Your task to perform on an android device: Search for pizza restaurants on Maps Image 0: 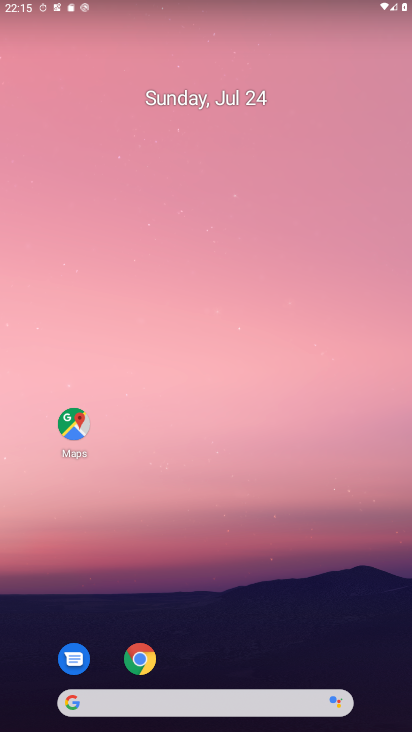
Step 0: drag from (221, 724) to (197, 77)
Your task to perform on an android device: Search for pizza restaurants on Maps Image 1: 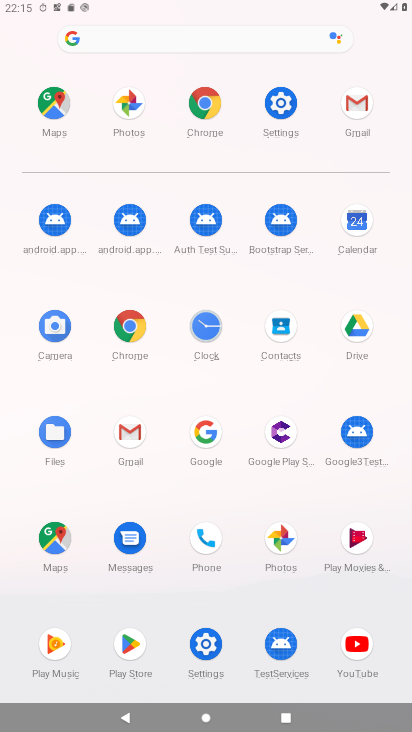
Step 1: click (56, 534)
Your task to perform on an android device: Search for pizza restaurants on Maps Image 2: 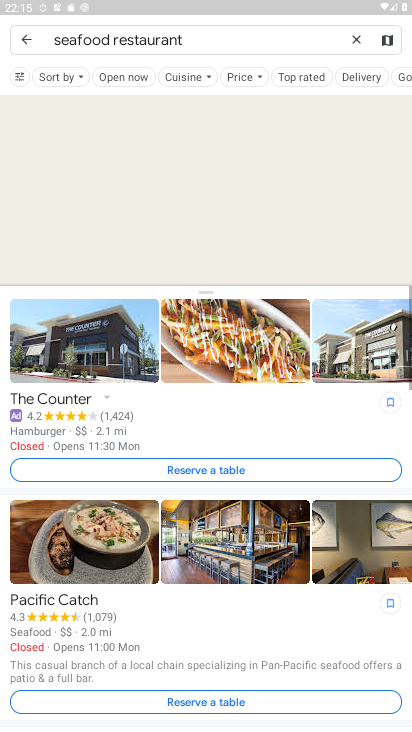
Step 2: click (352, 40)
Your task to perform on an android device: Search for pizza restaurants on Maps Image 3: 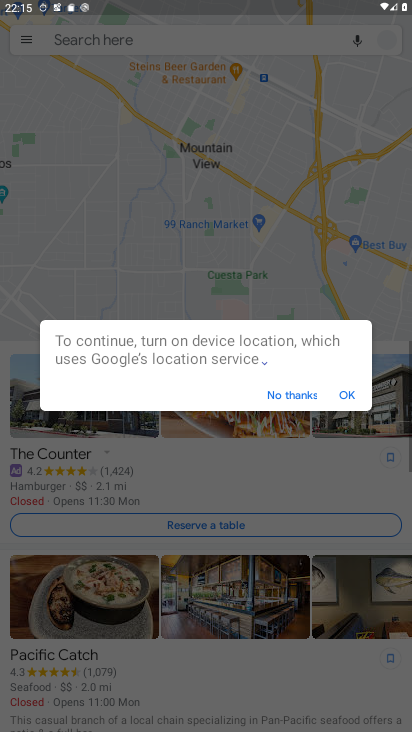
Step 3: click (341, 387)
Your task to perform on an android device: Search for pizza restaurants on Maps Image 4: 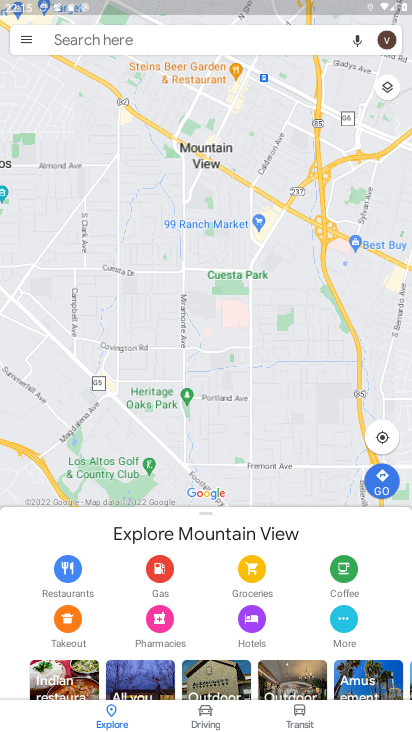
Step 4: click (258, 44)
Your task to perform on an android device: Search for pizza restaurants on Maps Image 5: 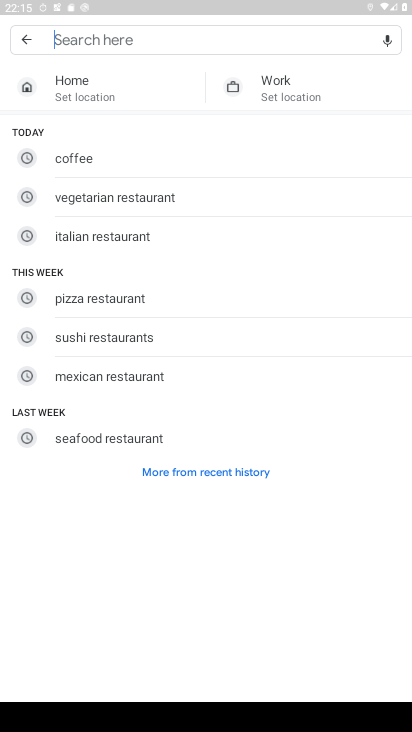
Step 5: type "pizza restaurants"
Your task to perform on an android device: Search for pizza restaurants on Maps Image 6: 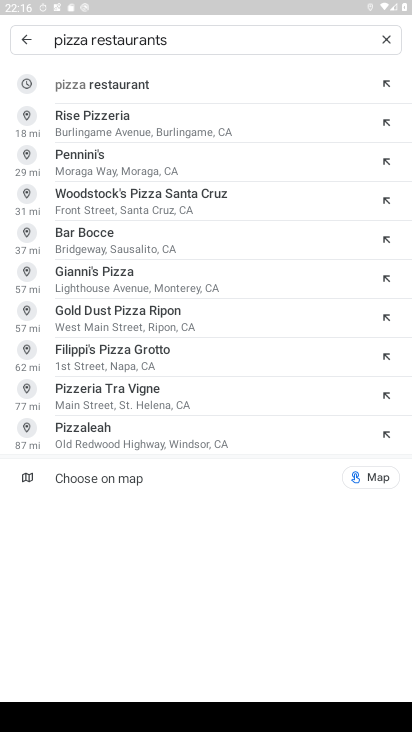
Step 6: click (83, 88)
Your task to perform on an android device: Search for pizza restaurants on Maps Image 7: 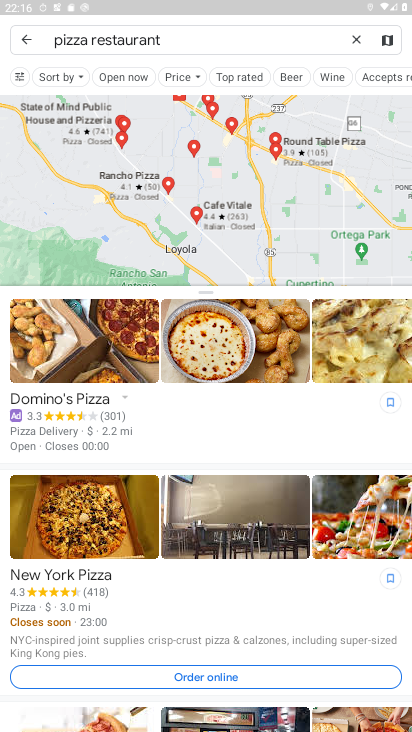
Step 7: task complete